Your task to perform on an android device: turn off improve location accuracy Image 0: 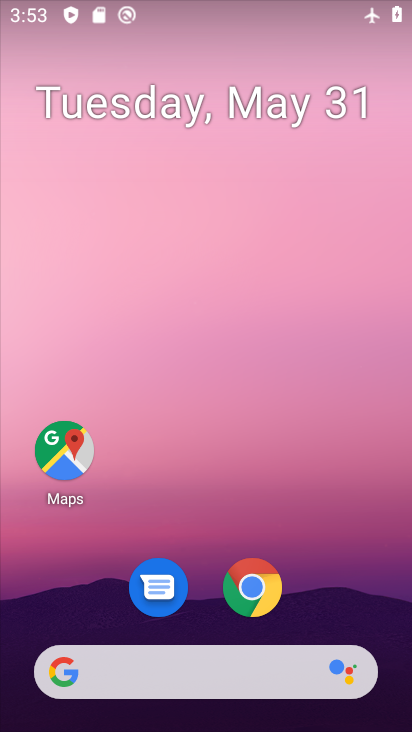
Step 0: drag from (125, 627) to (286, 266)
Your task to perform on an android device: turn off improve location accuracy Image 1: 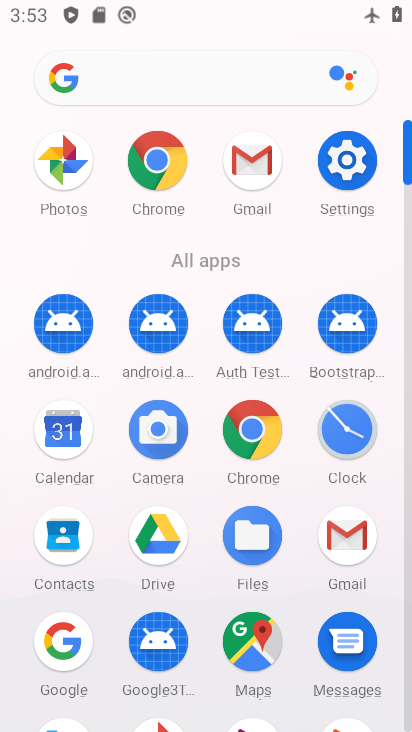
Step 1: drag from (103, 666) to (189, 367)
Your task to perform on an android device: turn off improve location accuracy Image 2: 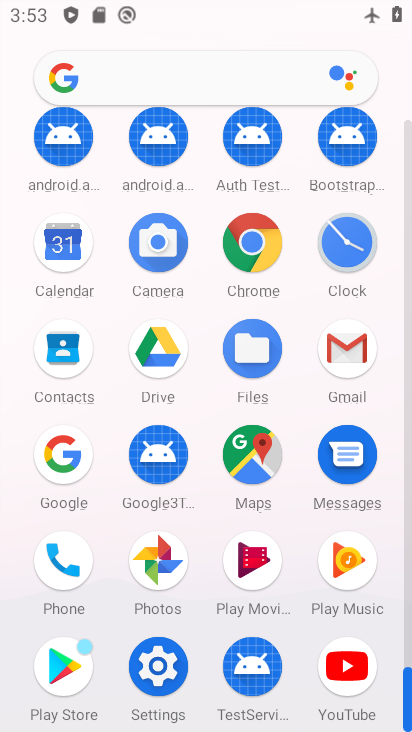
Step 2: click (164, 679)
Your task to perform on an android device: turn off improve location accuracy Image 3: 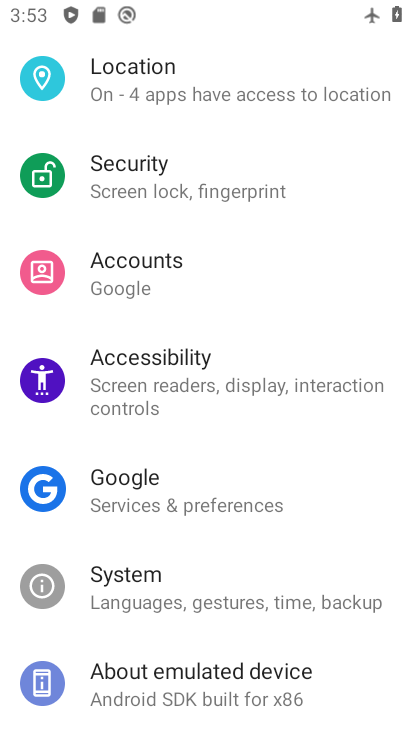
Step 3: click (315, 107)
Your task to perform on an android device: turn off improve location accuracy Image 4: 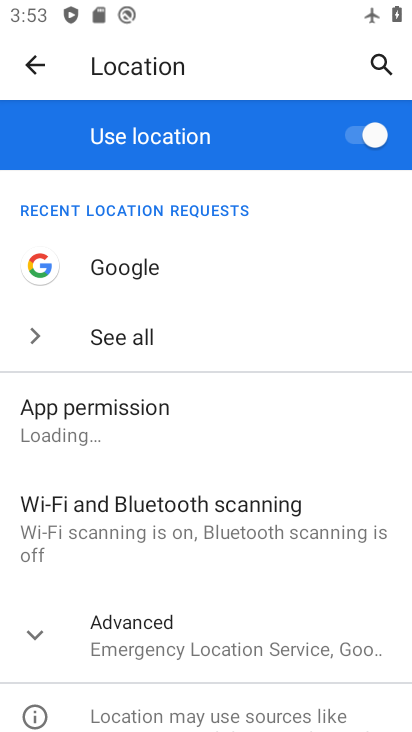
Step 4: click (208, 613)
Your task to perform on an android device: turn off improve location accuracy Image 5: 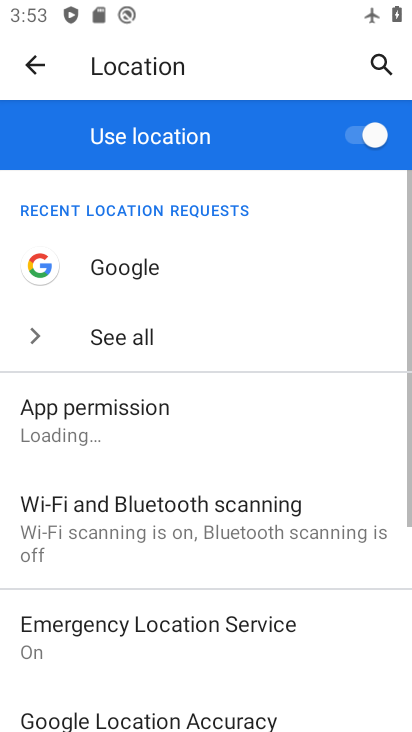
Step 5: drag from (210, 611) to (317, 288)
Your task to perform on an android device: turn off improve location accuracy Image 6: 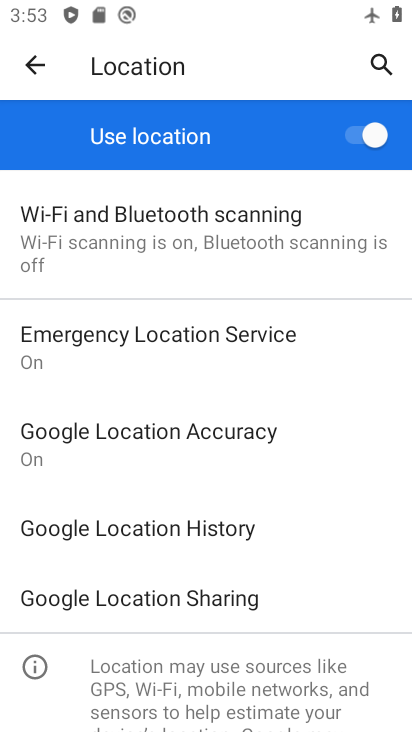
Step 6: click (282, 448)
Your task to perform on an android device: turn off improve location accuracy Image 7: 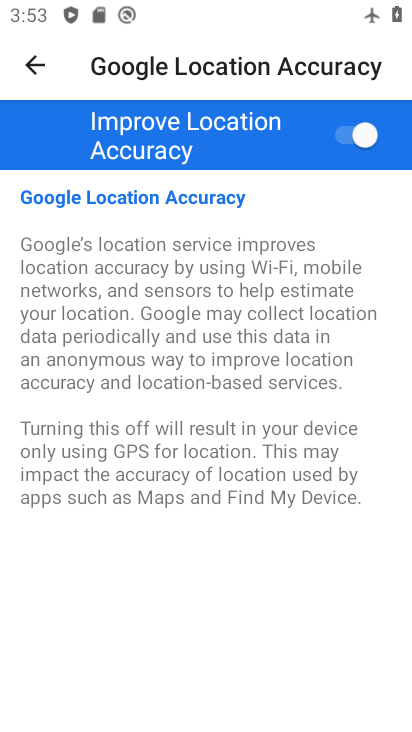
Step 7: click (342, 142)
Your task to perform on an android device: turn off improve location accuracy Image 8: 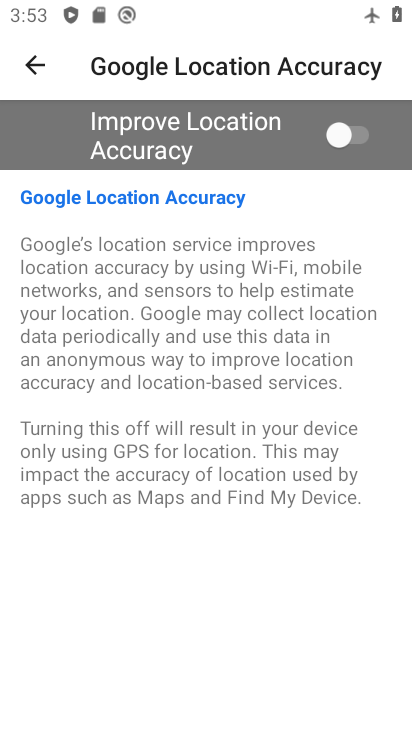
Step 8: task complete